Your task to perform on an android device: What's the weather? Image 0: 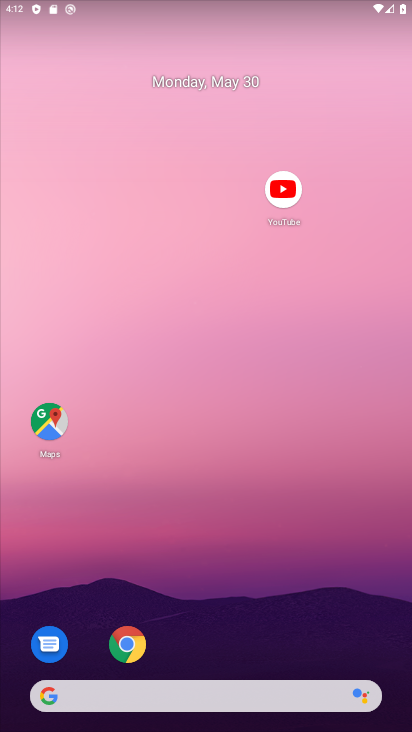
Step 0: click (206, 707)
Your task to perform on an android device: What's the weather? Image 1: 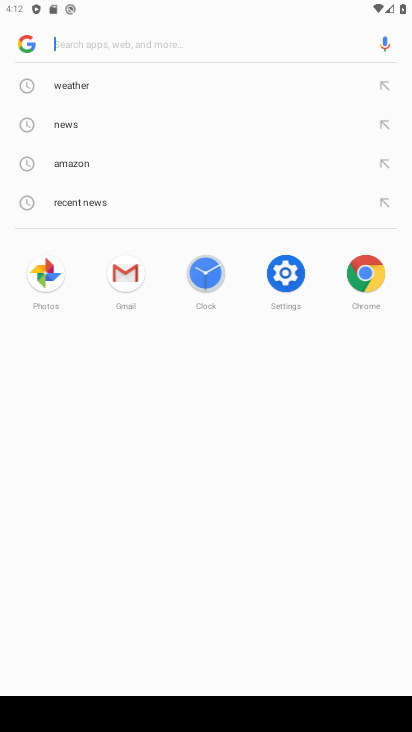
Step 1: click (172, 96)
Your task to perform on an android device: What's the weather? Image 2: 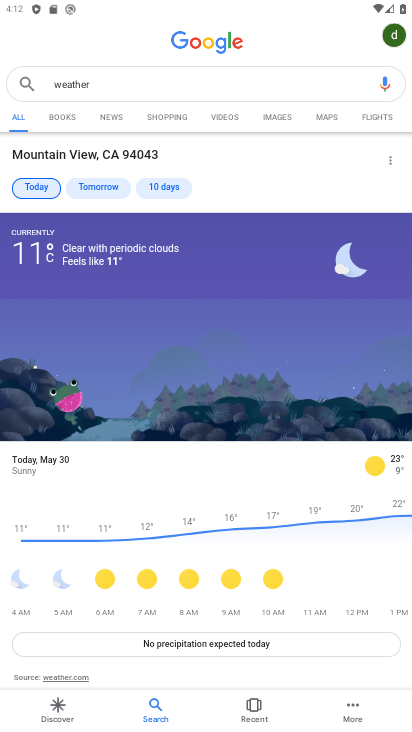
Step 2: task complete